Your task to perform on an android device: Open battery settings Image 0: 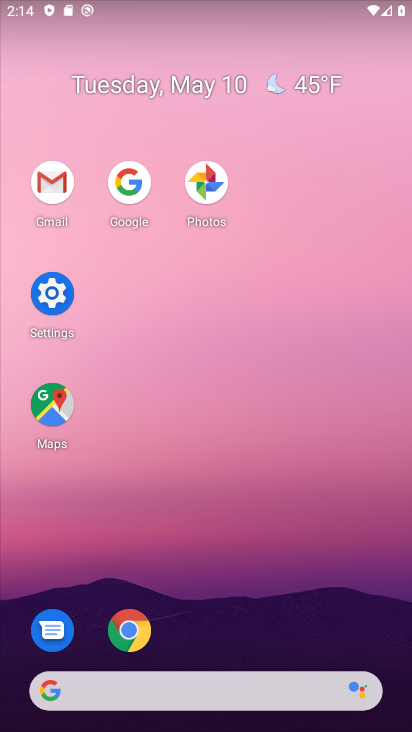
Step 0: click (55, 297)
Your task to perform on an android device: Open battery settings Image 1: 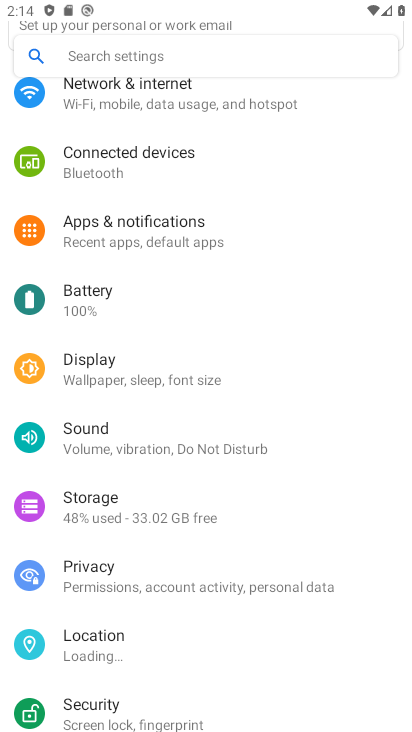
Step 1: click (148, 306)
Your task to perform on an android device: Open battery settings Image 2: 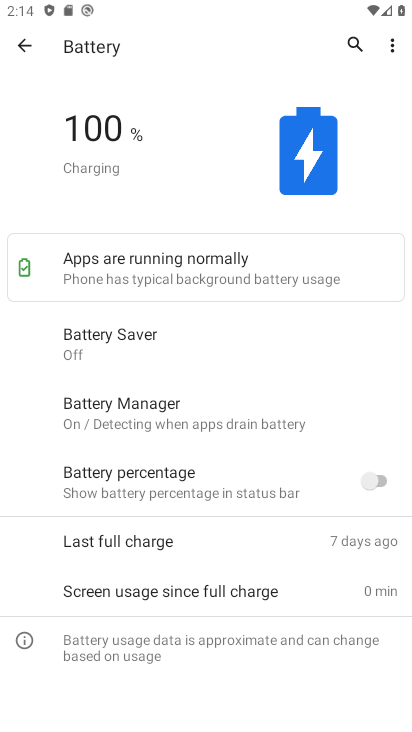
Step 2: task complete